Your task to perform on an android device: turn off javascript in the chrome app Image 0: 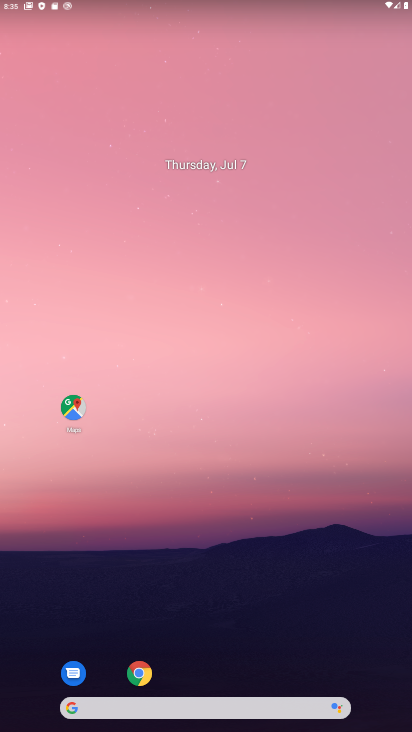
Step 0: click (130, 676)
Your task to perform on an android device: turn off javascript in the chrome app Image 1: 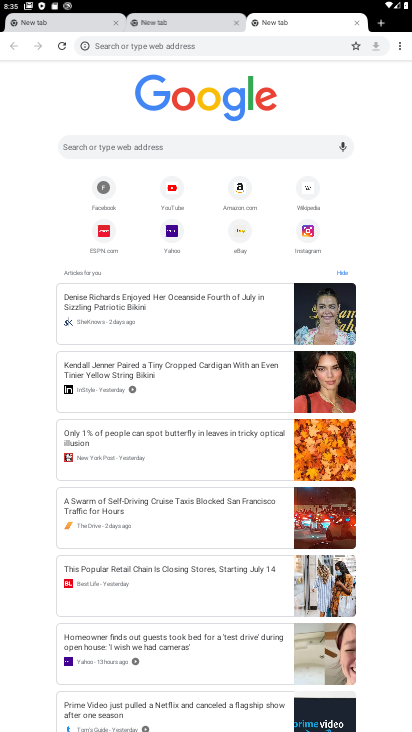
Step 1: click (397, 45)
Your task to perform on an android device: turn off javascript in the chrome app Image 2: 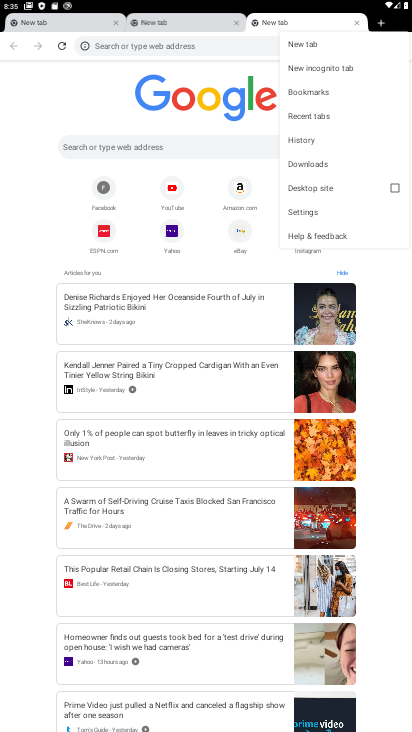
Step 2: click (341, 214)
Your task to perform on an android device: turn off javascript in the chrome app Image 3: 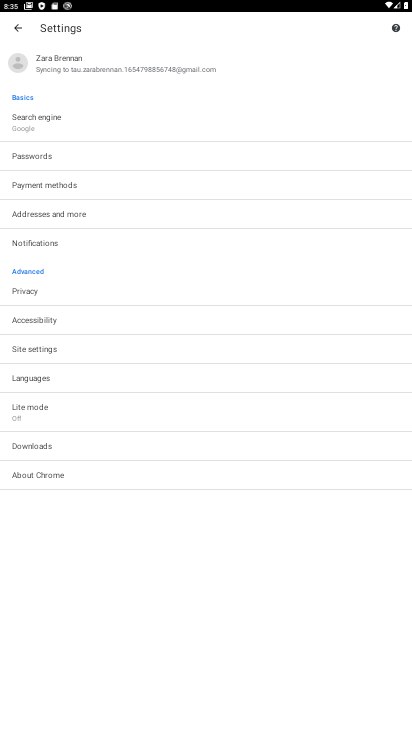
Step 3: click (67, 344)
Your task to perform on an android device: turn off javascript in the chrome app Image 4: 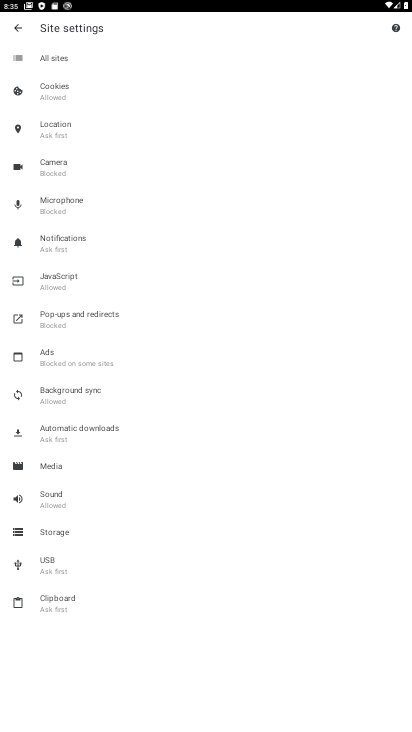
Step 4: click (45, 269)
Your task to perform on an android device: turn off javascript in the chrome app Image 5: 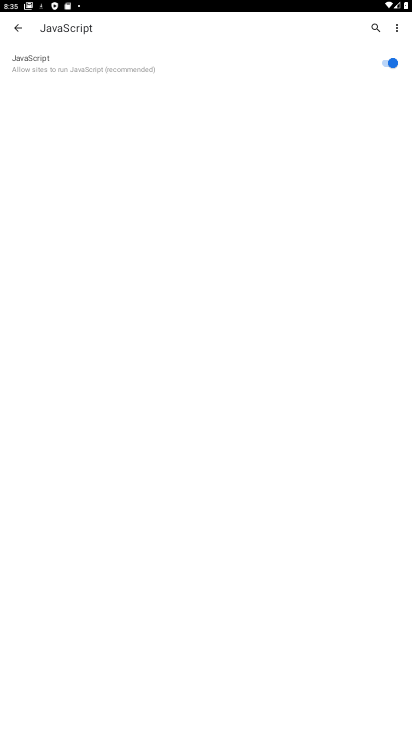
Step 5: click (386, 67)
Your task to perform on an android device: turn off javascript in the chrome app Image 6: 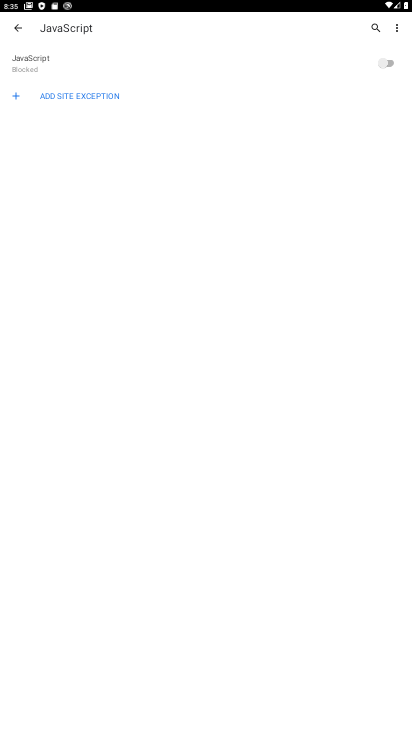
Step 6: task complete